Your task to perform on an android device: clear history in the chrome app Image 0: 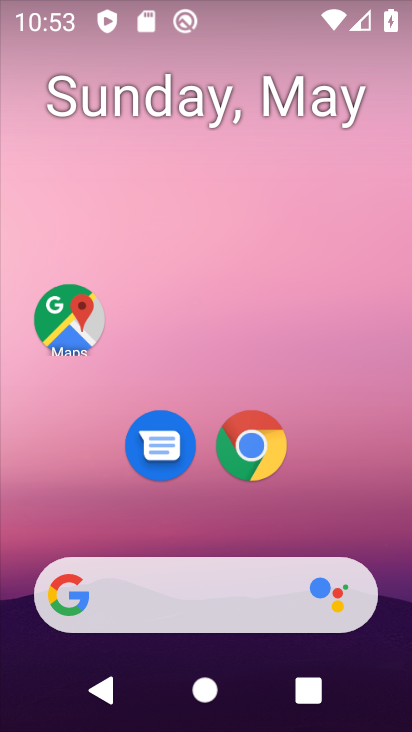
Step 0: click (265, 453)
Your task to perform on an android device: clear history in the chrome app Image 1: 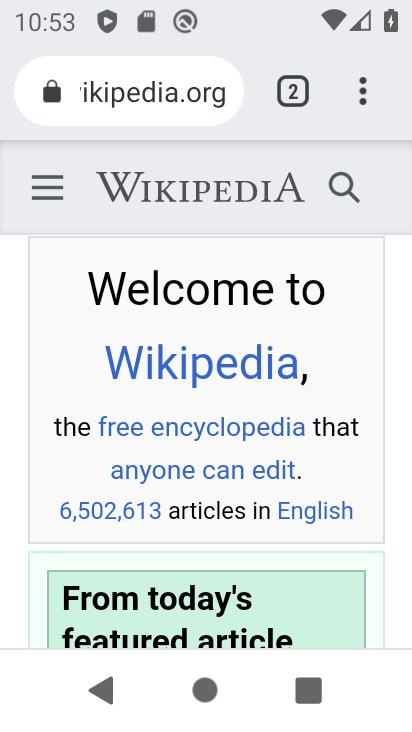
Step 1: drag from (365, 80) to (159, 521)
Your task to perform on an android device: clear history in the chrome app Image 2: 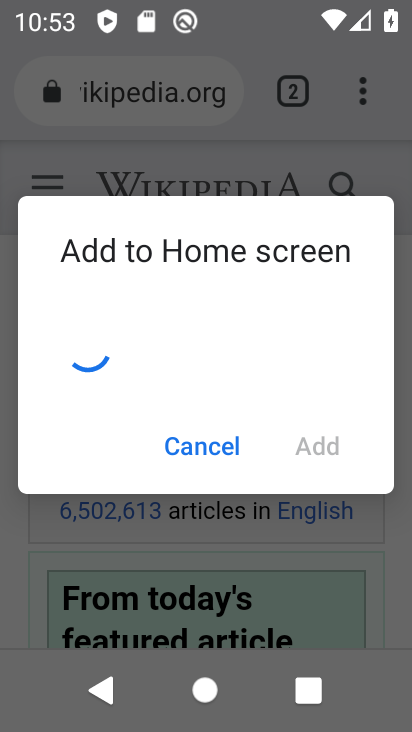
Step 2: click (203, 451)
Your task to perform on an android device: clear history in the chrome app Image 3: 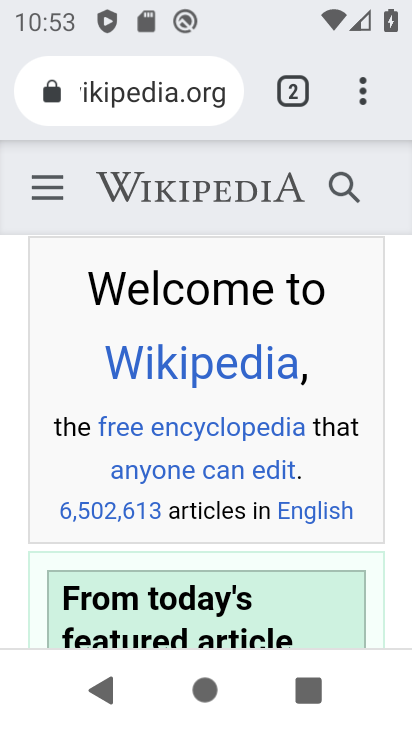
Step 3: drag from (360, 92) to (88, 453)
Your task to perform on an android device: clear history in the chrome app Image 4: 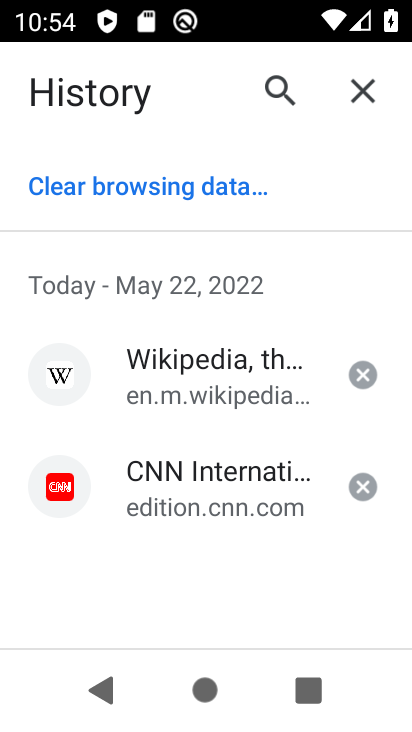
Step 4: click (60, 367)
Your task to perform on an android device: clear history in the chrome app Image 5: 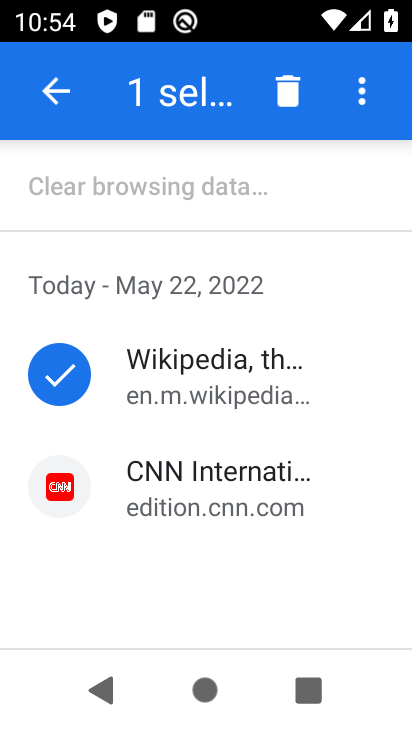
Step 5: click (64, 495)
Your task to perform on an android device: clear history in the chrome app Image 6: 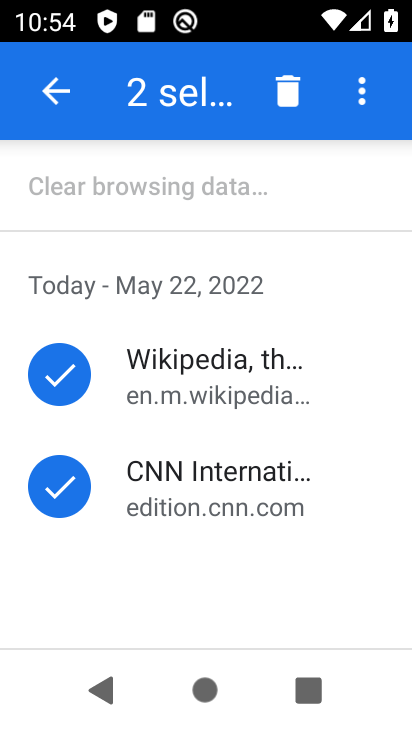
Step 6: click (283, 94)
Your task to perform on an android device: clear history in the chrome app Image 7: 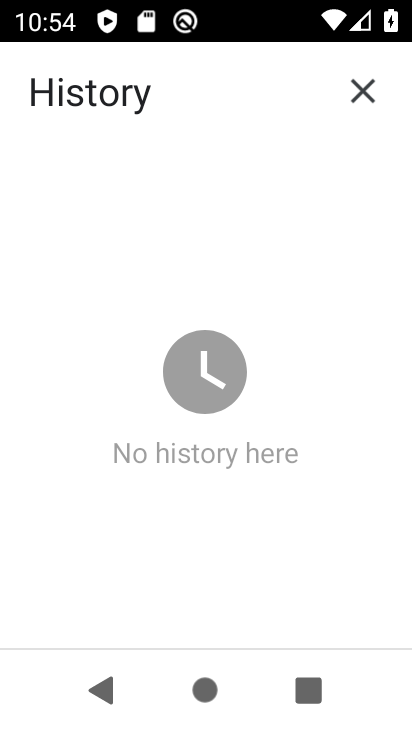
Step 7: task complete